Your task to perform on an android device: show emergency info Image 0: 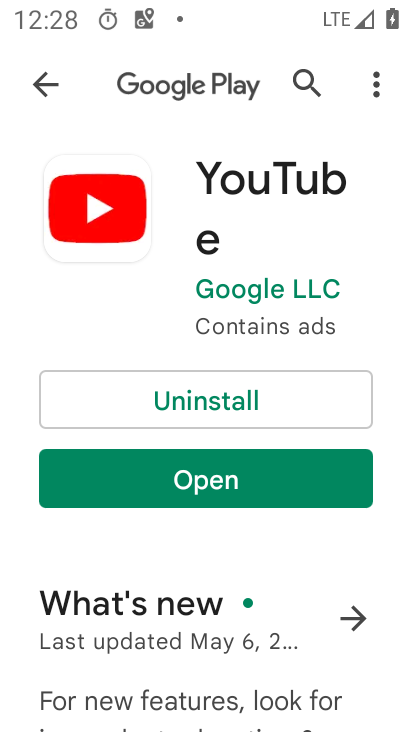
Step 0: press home button
Your task to perform on an android device: show emergency info Image 1: 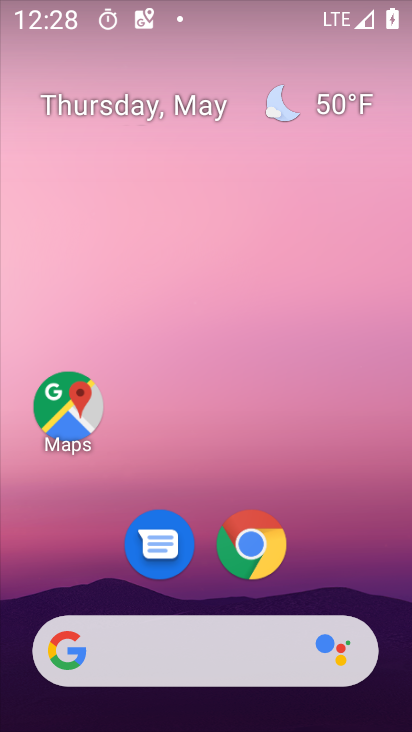
Step 1: drag from (213, 640) to (171, 161)
Your task to perform on an android device: show emergency info Image 2: 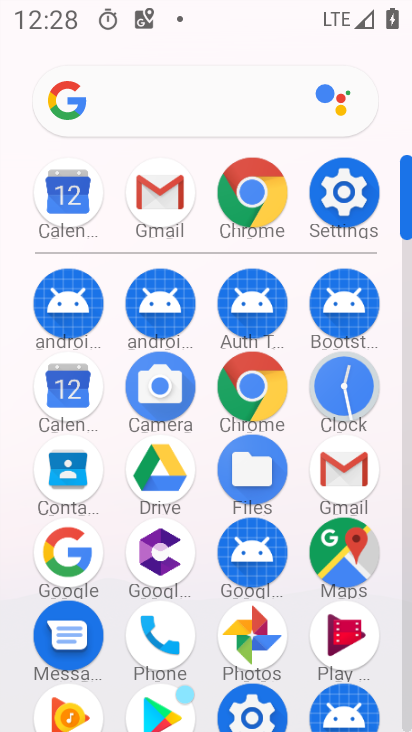
Step 2: click (326, 195)
Your task to perform on an android device: show emergency info Image 3: 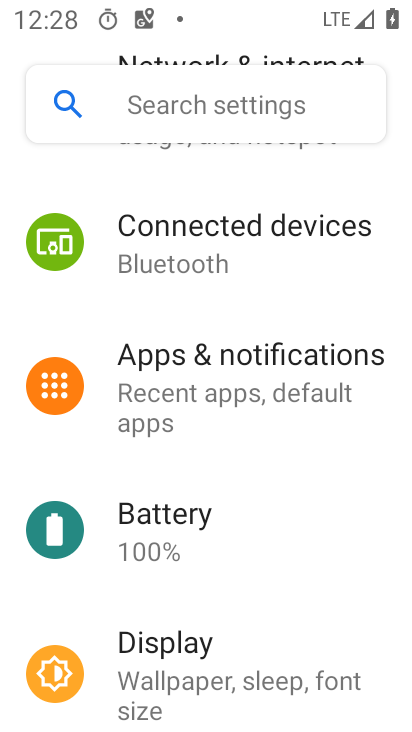
Step 3: drag from (236, 587) to (222, 23)
Your task to perform on an android device: show emergency info Image 4: 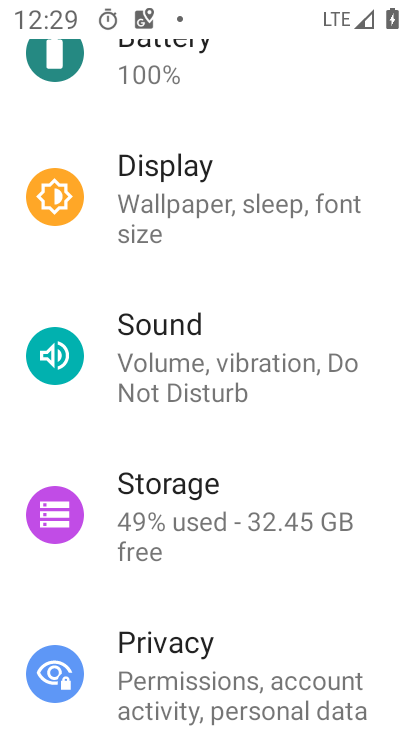
Step 4: drag from (171, 577) to (91, 11)
Your task to perform on an android device: show emergency info Image 5: 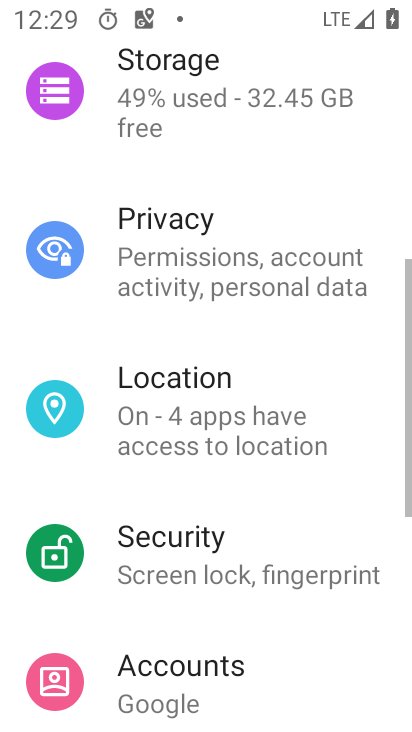
Step 5: drag from (200, 653) to (190, 107)
Your task to perform on an android device: show emergency info Image 6: 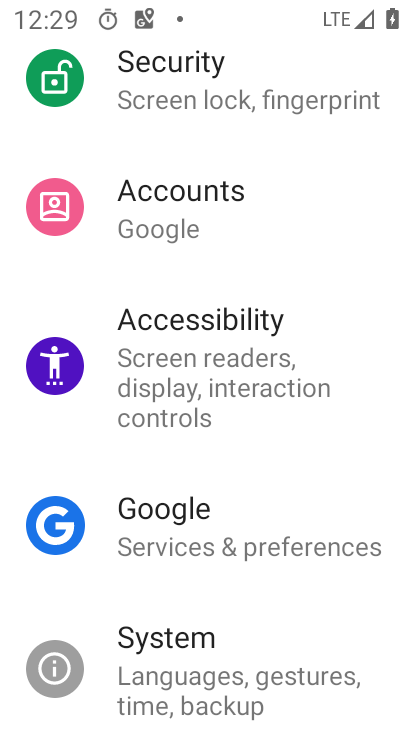
Step 6: drag from (181, 583) to (2, 25)
Your task to perform on an android device: show emergency info Image 7: 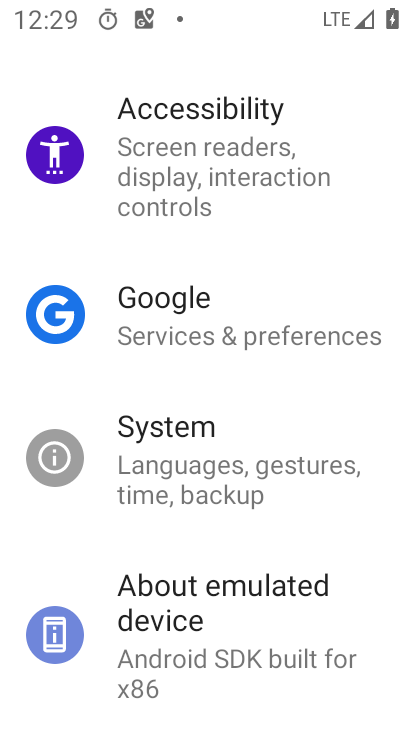
Step 7: click (207, 625)
Your task to perform on an android device: show emergency info Image 8: 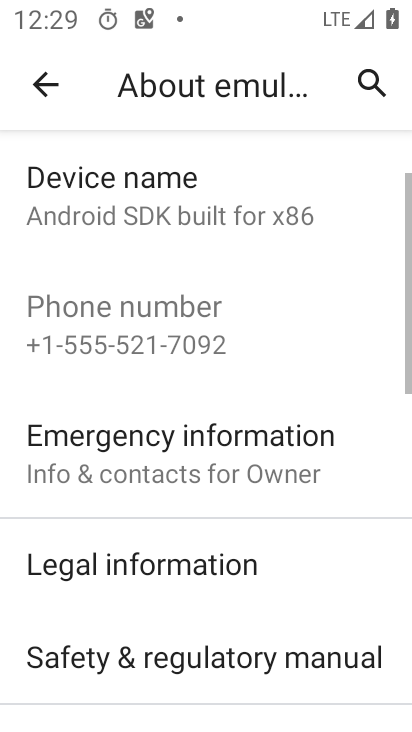
Step 8: click (178, 448)
Your task to perform on an android device: show emergency info Image 9: 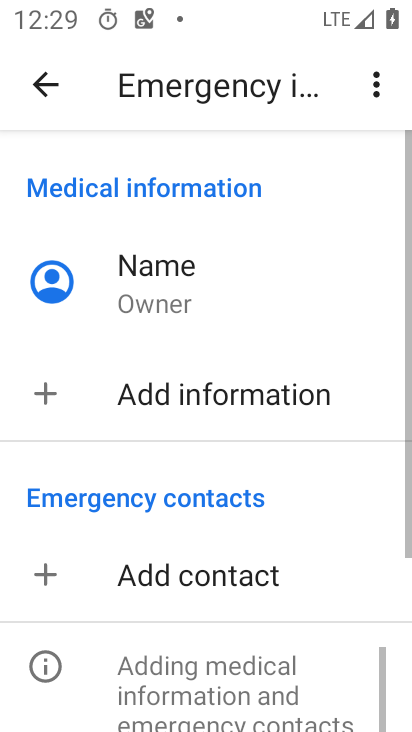
Step 9: task complete